Your task to perform on an android device: clear history in the chrome app Image 0: 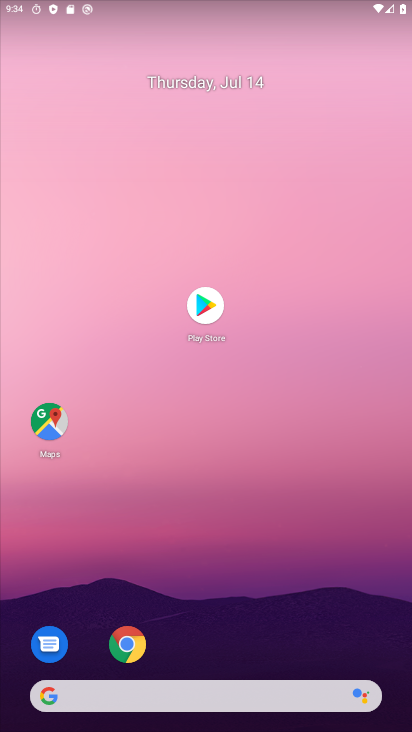
Step 0: drag from (207, 638) to (219, 200)
Your task to perform on an android device: clear history in the chrome app Image 1: 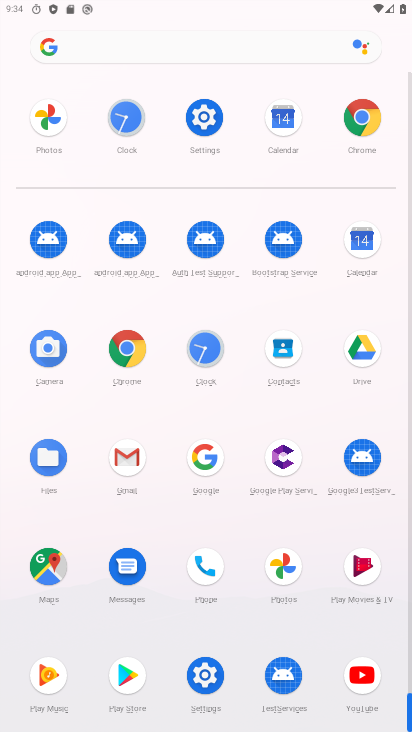
Step 1: click (119, 351)
Your task to perform on an android device: clear history in the chrome app Image 2: 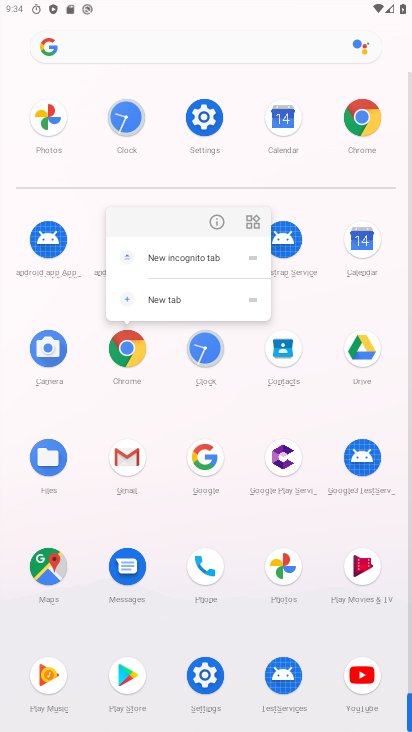
Step 2: click (213, 227)
Your task to perform on an android device: clear history in the chrome app Image 3: 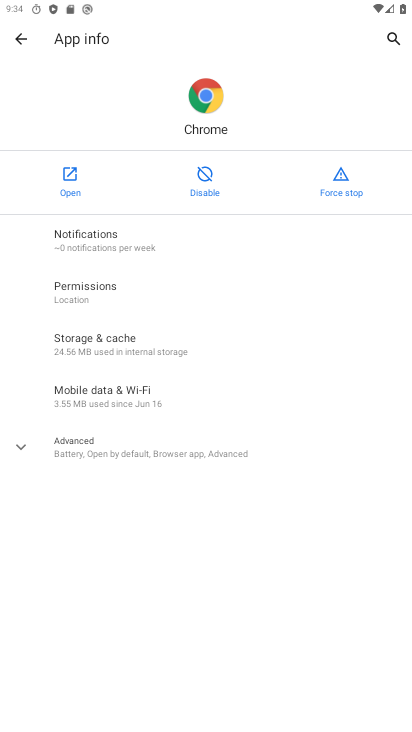
Step 3: click (74, 182)
Your task to perform on an android device: clear history in the chrome app Image 4: 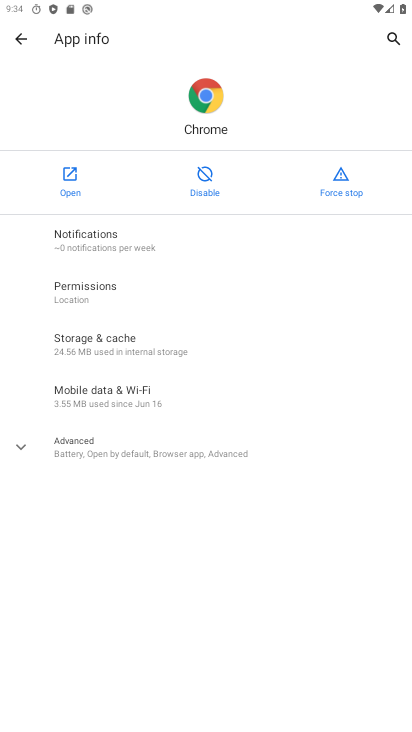
Step 4: click (71, 182)
Your task to perform on an android device: clear history in the chrome app Image 5: 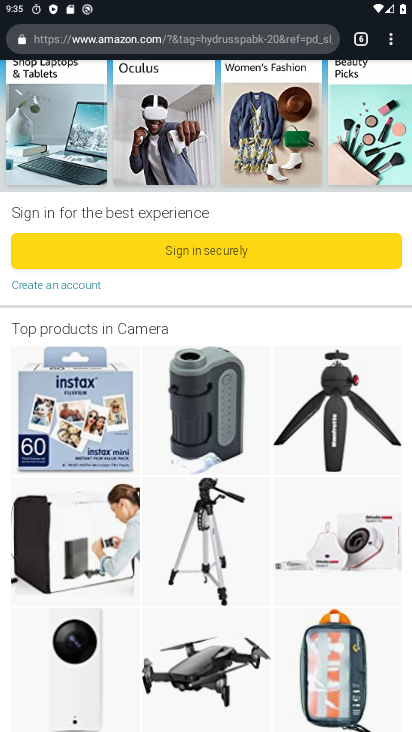
Step 5: drag from (391, 37) to (261, 221)
Your task to perform on an android device: clear history in the chrome app Image 6: 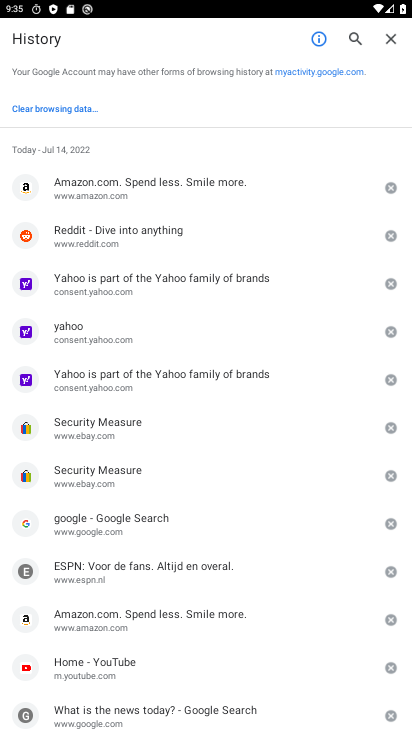
Step 6: click (50, 106)
Your task to perform on an android device: clear history in the chrome app Image 7: 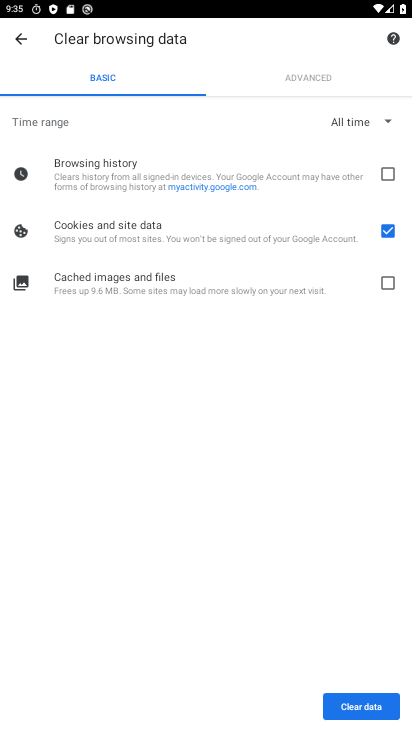
Step 7: click (376, 180)
Your task to perform on an android device: clear history in the chrome app Image 8: 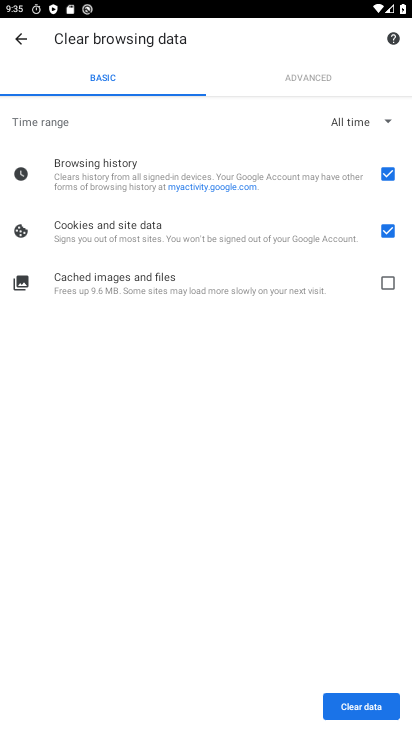
Step 8: click (383, 280)
Your task to perform on an android device: clear history in the chrome app Image 9: 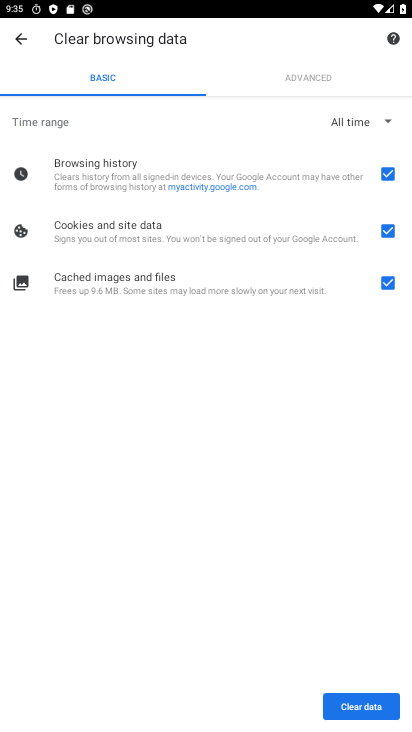
Step 9: click (356, 708)
Your task to perform on an android device: clear history in the chrome app Image 10: 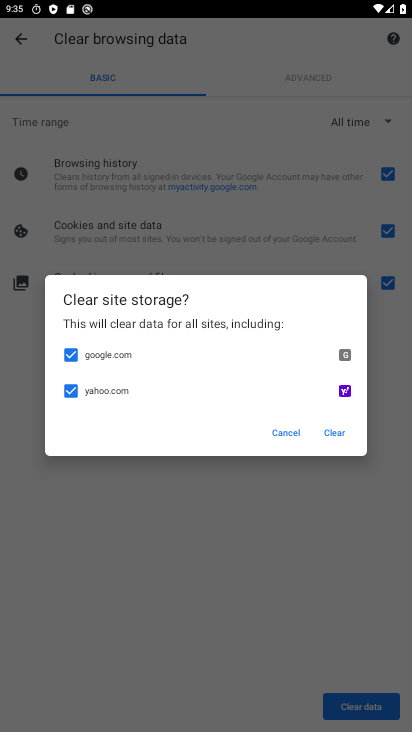
Step 10: click (330, 437)
Your task to perform on an android device: clear history in the chrome app Image 11: 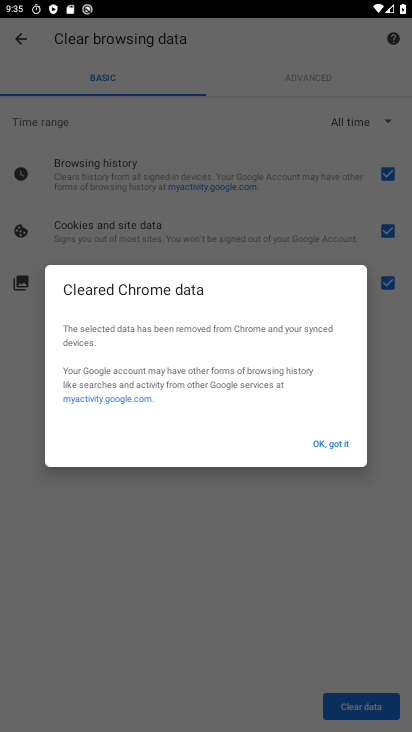
Step 11: task complete